Your task to perform on an android device: check battery use Image 0: 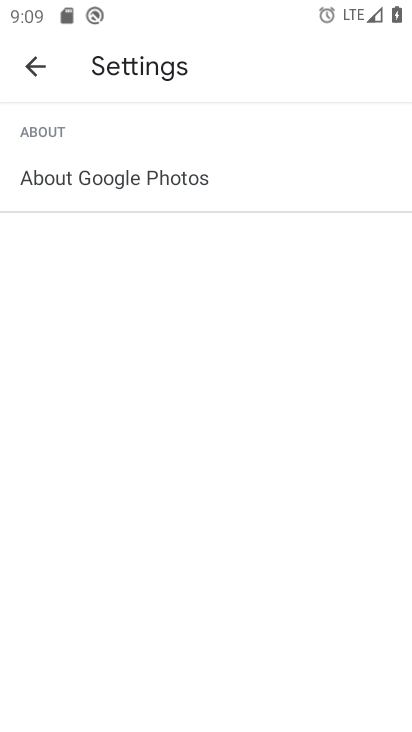
Step 0: press home button
Your task to perform on an android device: check battery use Image 1: 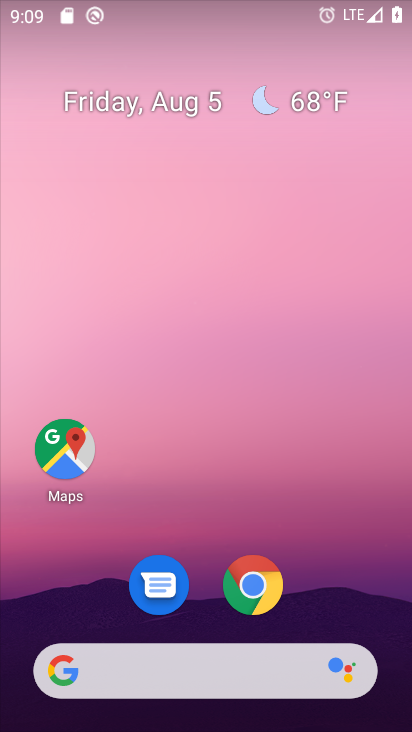
Step 1: drag from (209, 449) to (244, 0)
Your task to perform on an android device: check battery use Image 2: 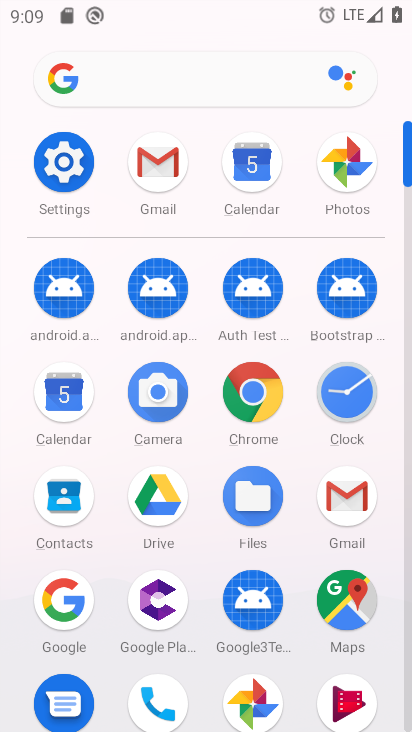
Step 2: click (61, 163)
Your task to perform on an android device: check battery use Image 3: 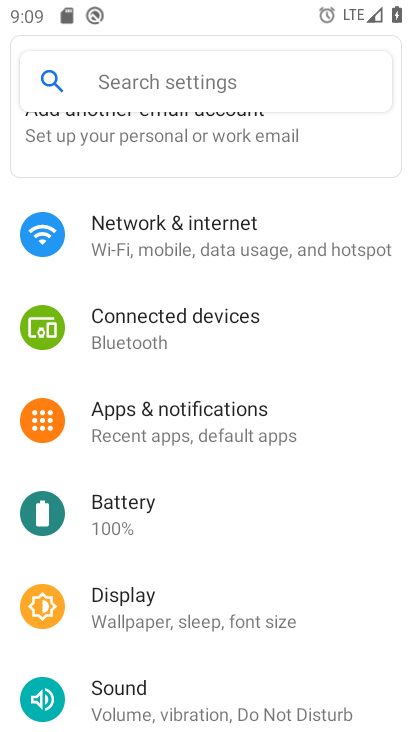
Step 3: click (129, 515)
Your task to perform on an android device: check battery use Image 4: 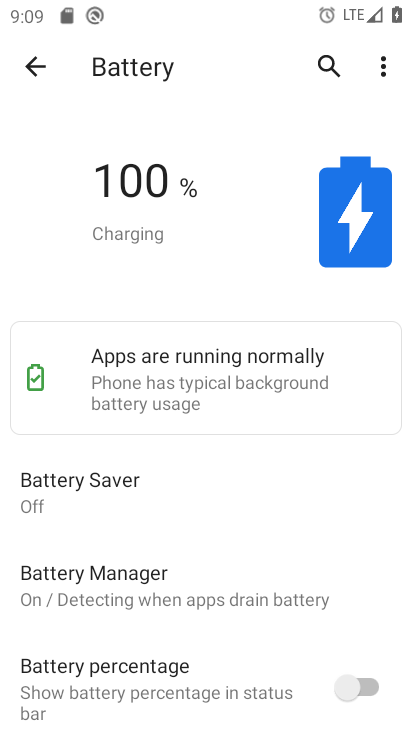
Step 4: drag from (206, 526) to (265, 188)
Your task to perform on an android device: check battery use Image 5: 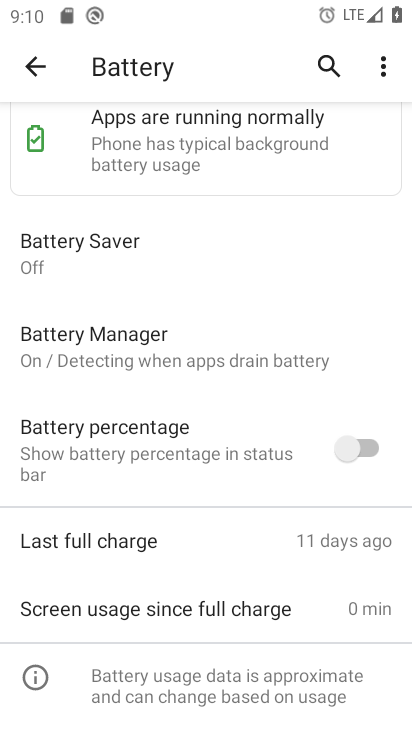
Step 5: drag from (267, 201) to (319, 427)
Your task to perform on an android device: check battery use Image 6: 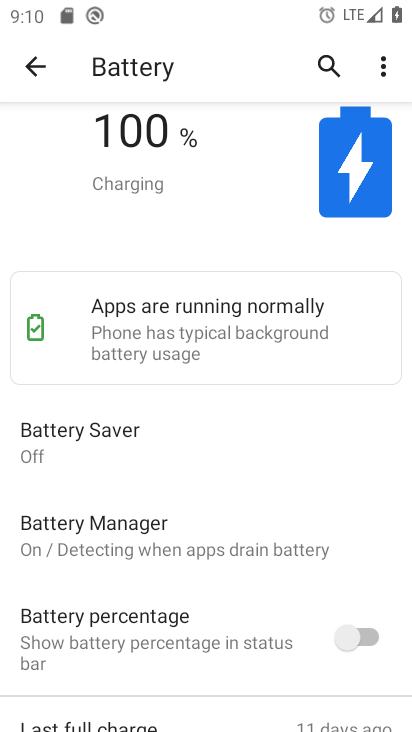
Step 6: click (383, 65)
Your task to perform on an android device: check battery use Image 7: 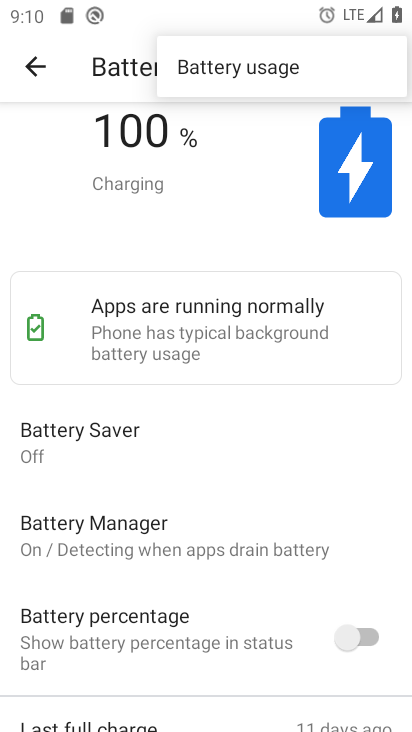
Step 7: click (266, 58)
Your task to perform on an android device: check battery use Image 8: 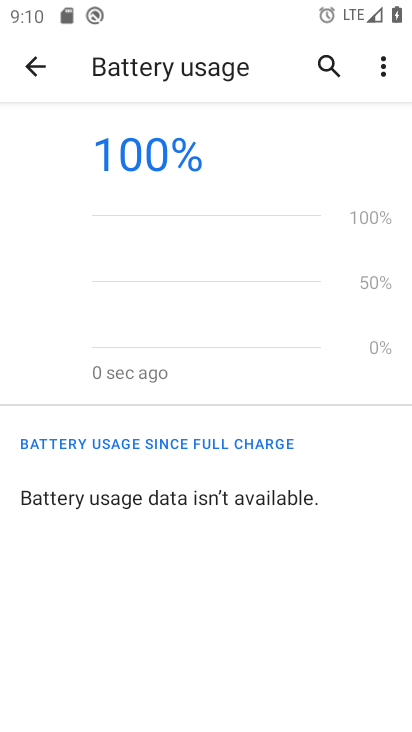
Step 8: task complete